Your task to perform on an android device: turn on bluetooth scan Image 0: 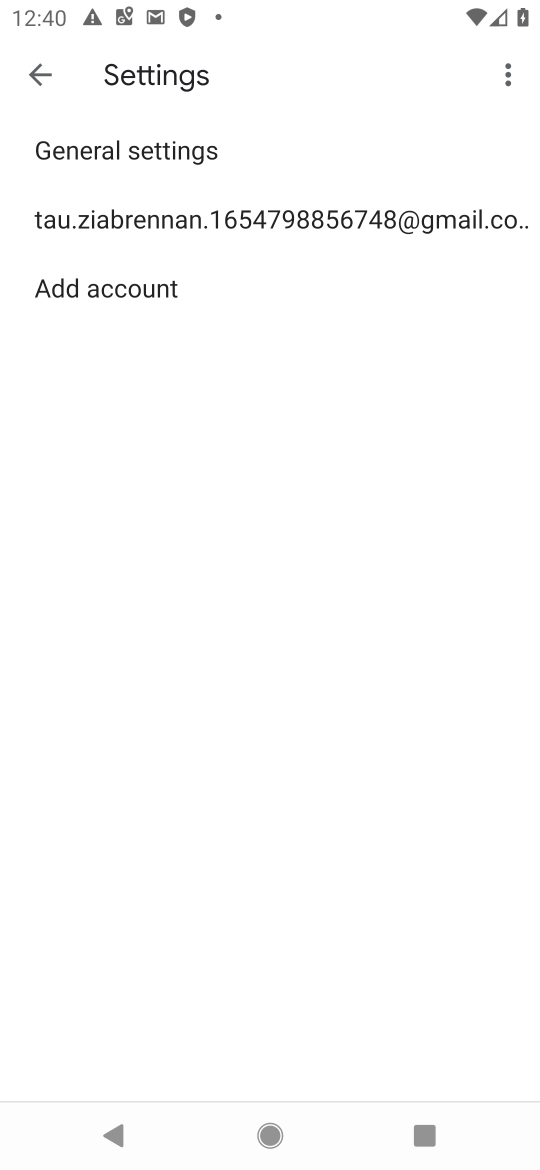
Step 0: press home button
Your task to perform on an android device: turn on bluetooth scan Image 1: 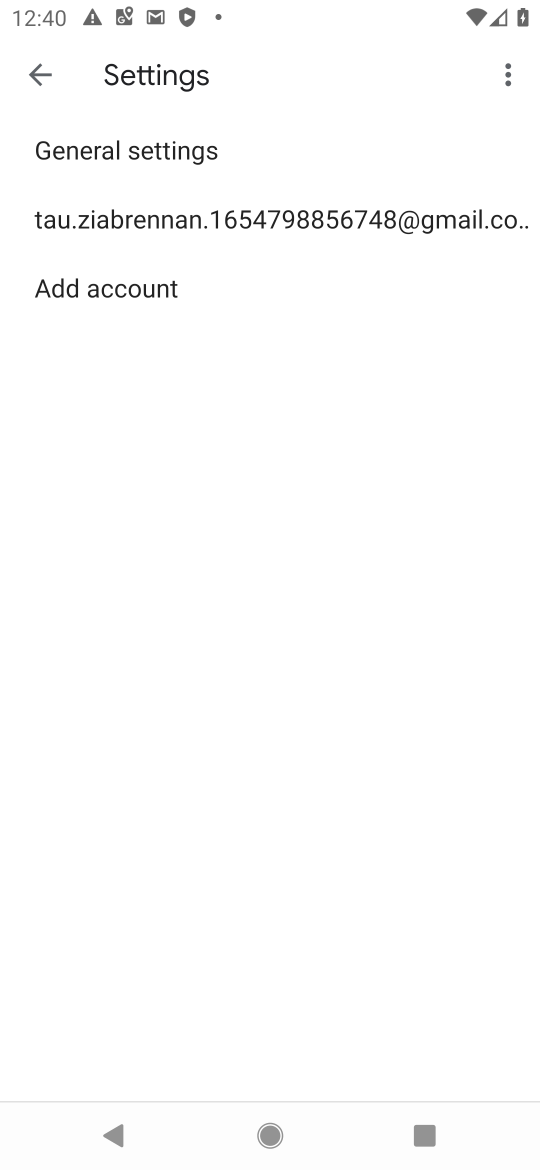
Step 1: press home button
Your task to perform on an android device: turn on bluetooth scan Image 2: 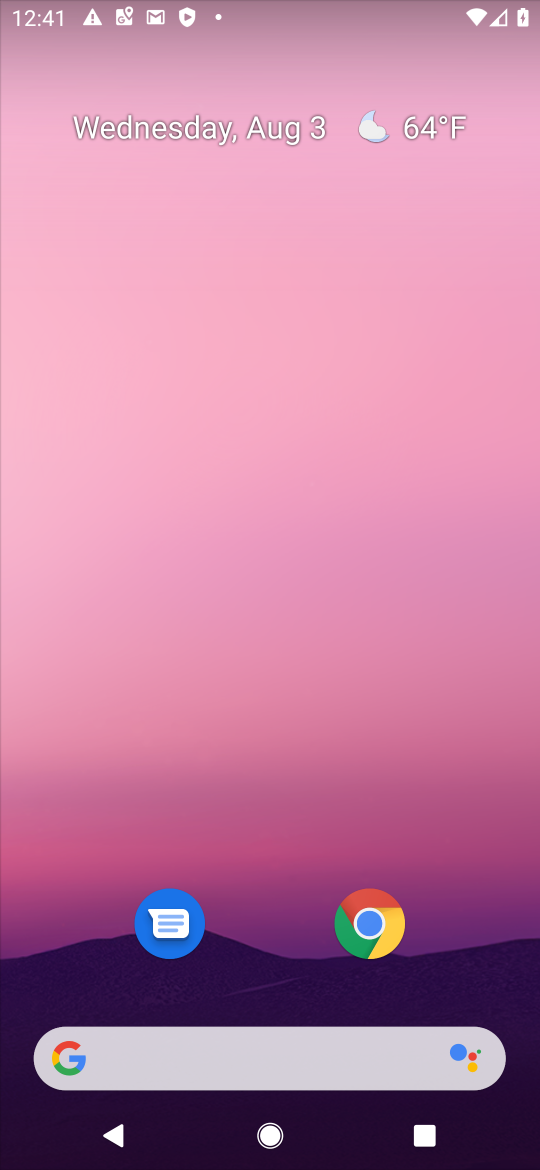
Step 2: drag from (257, 1024) to (383, 427)
Your task to perform on an android device: turn on bluetooth scan Image 3: 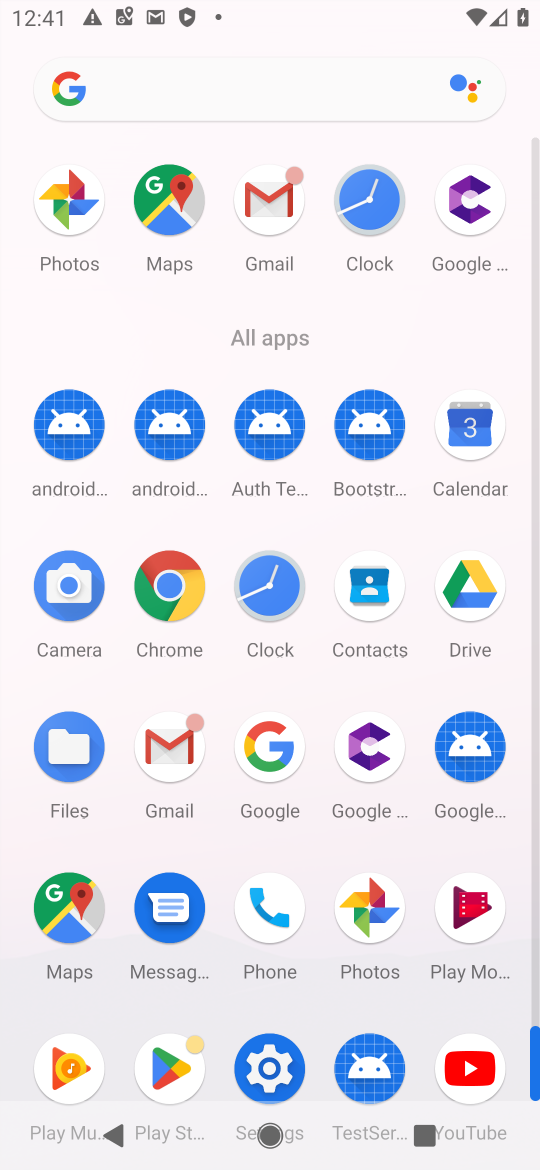
Step 3: drag from (308, 972) to (372, 439)
Your task to perform on an android device: turn on bluetooth scan Image 4: 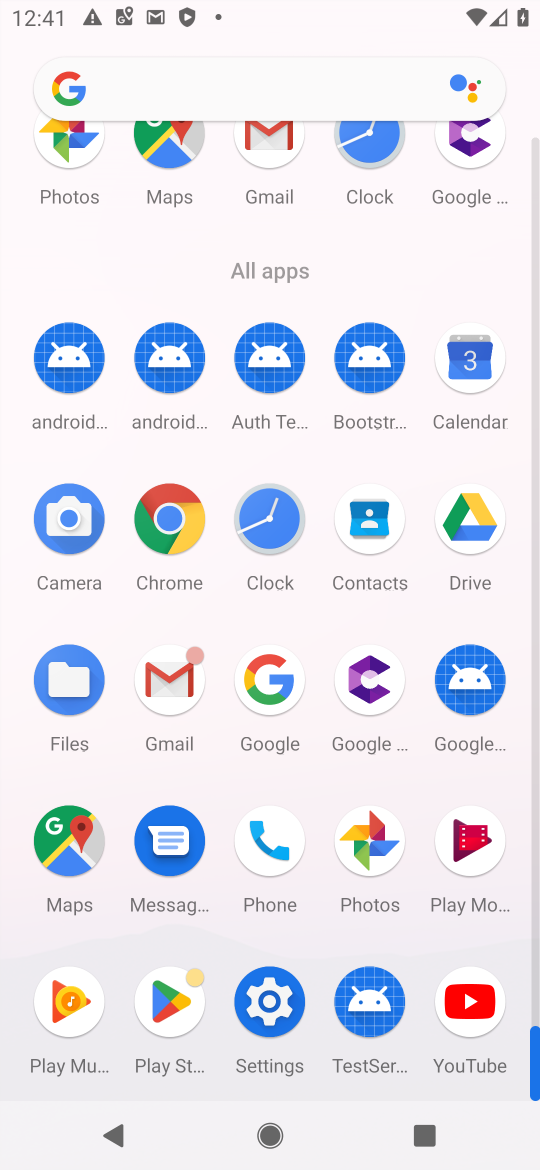
Step 4: click (267, 1003)
Your task to perform on an android device: turn on bluetooth scan Image 5: 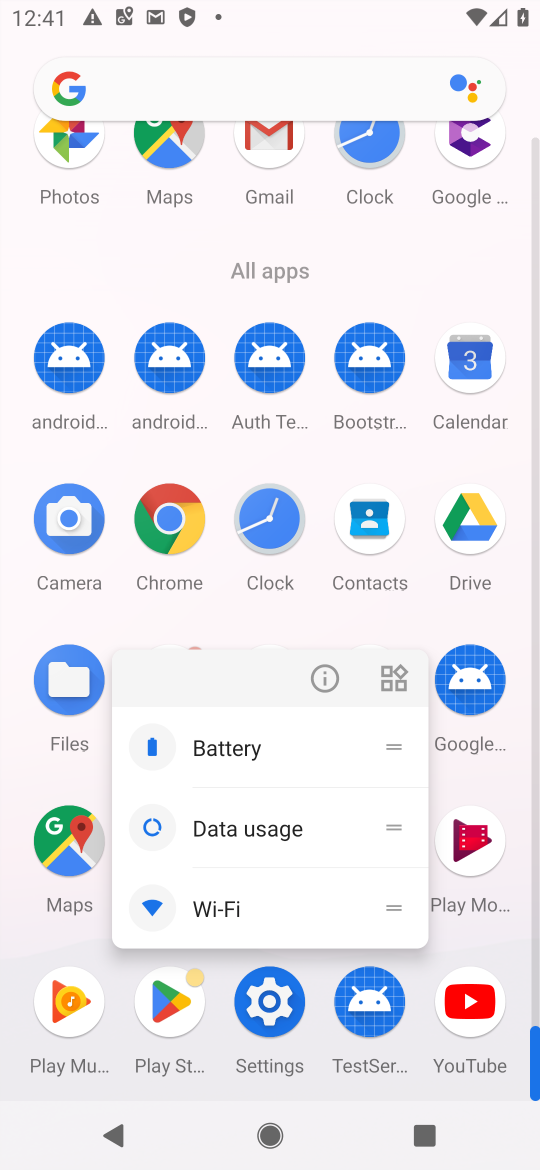
Step 5: click (324, 688)
Your task to perform on an android device: turn on bluetooth scan Image 6: 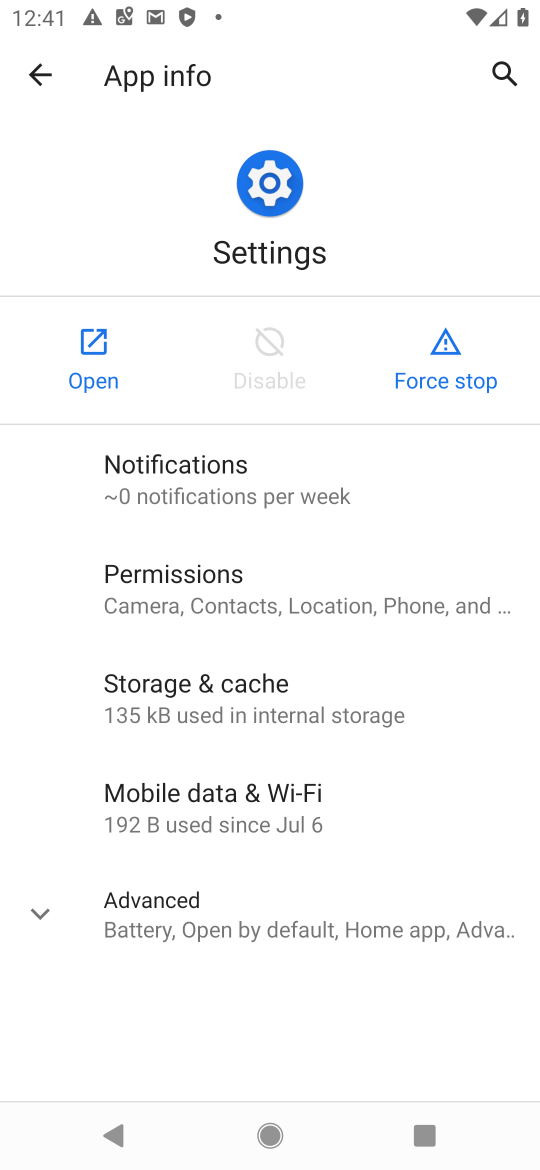
Step 6: click (94, 362)
Your task to perform on an android device: turn on bluetooth scan Image 7: 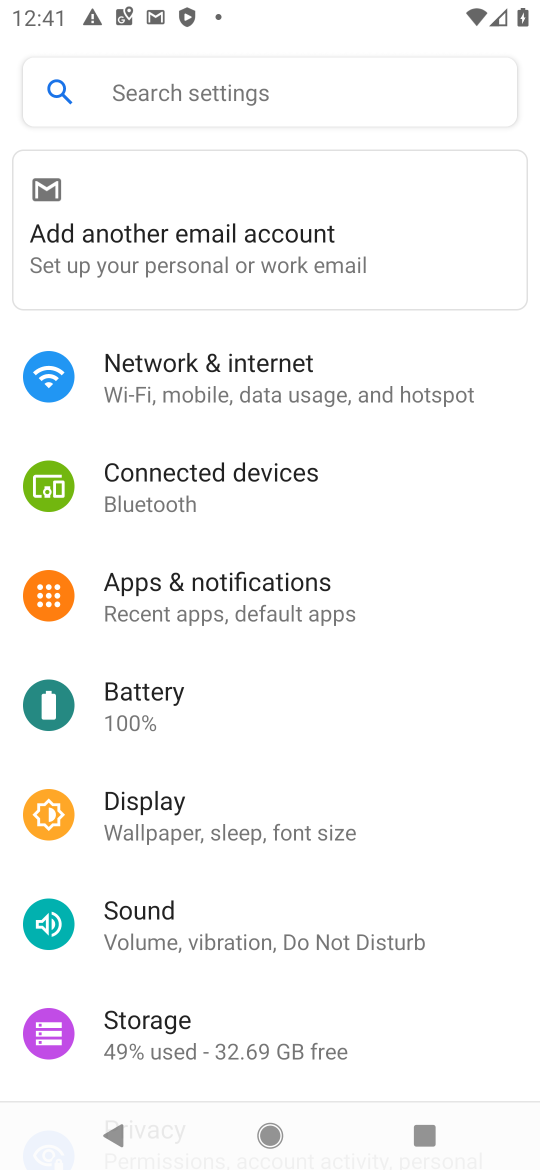
Step 7: drag from (291, 973) to (323, 421)
Your task to perform on an android device: turn on bluetooth scan Image 8: 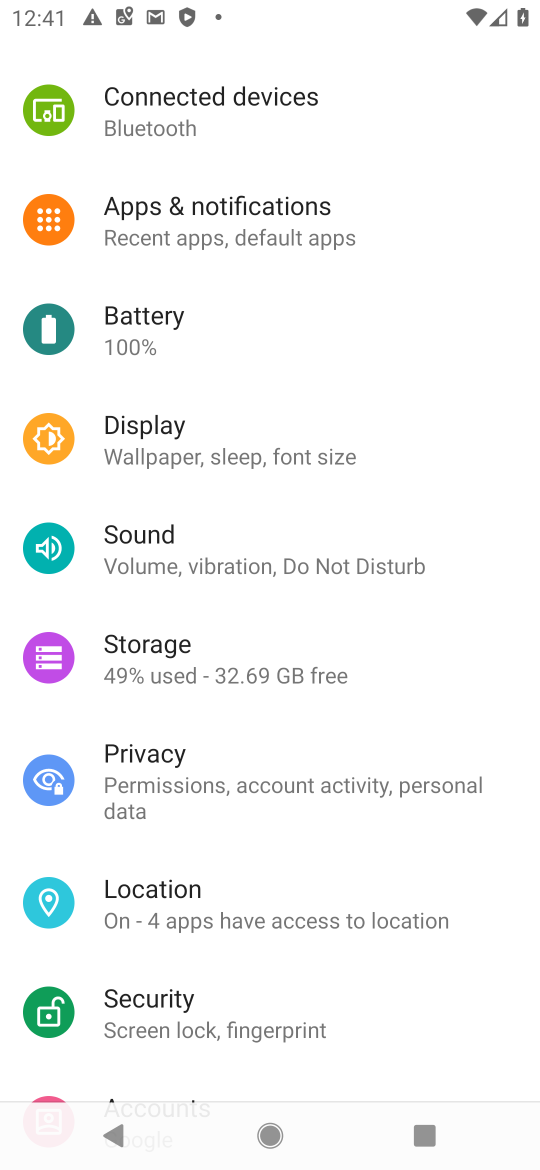
Step 8: drag from (322, 500) to (518, 1149)
Your task to perform on an android device: turn on bluetooth scan Image 9: 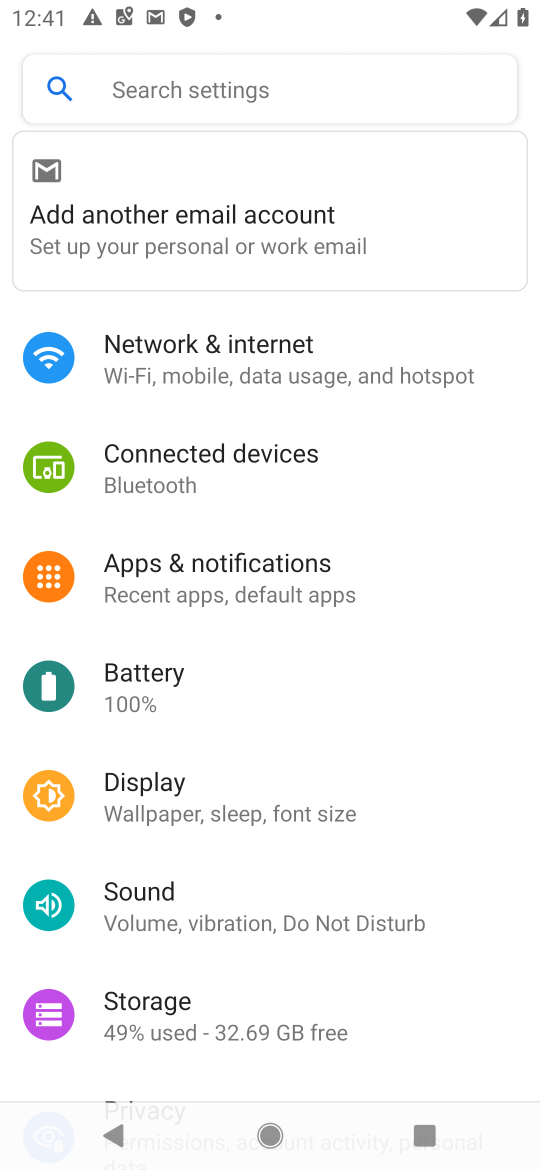
Step 9: drag from (264, 980) to (389, 138)
Your task to perform on an android device: turn on bluetooth scan Image 10: 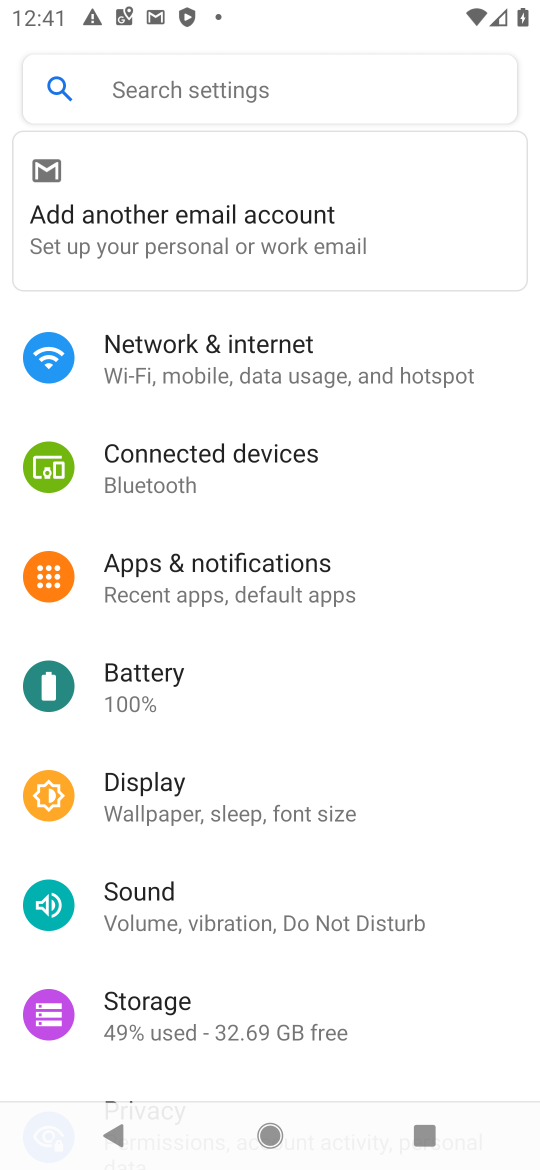
Step 10: drag from (212, 951) to (326, 204)
Your task to perform on an android device: turn on bluetooth scan Image 11: 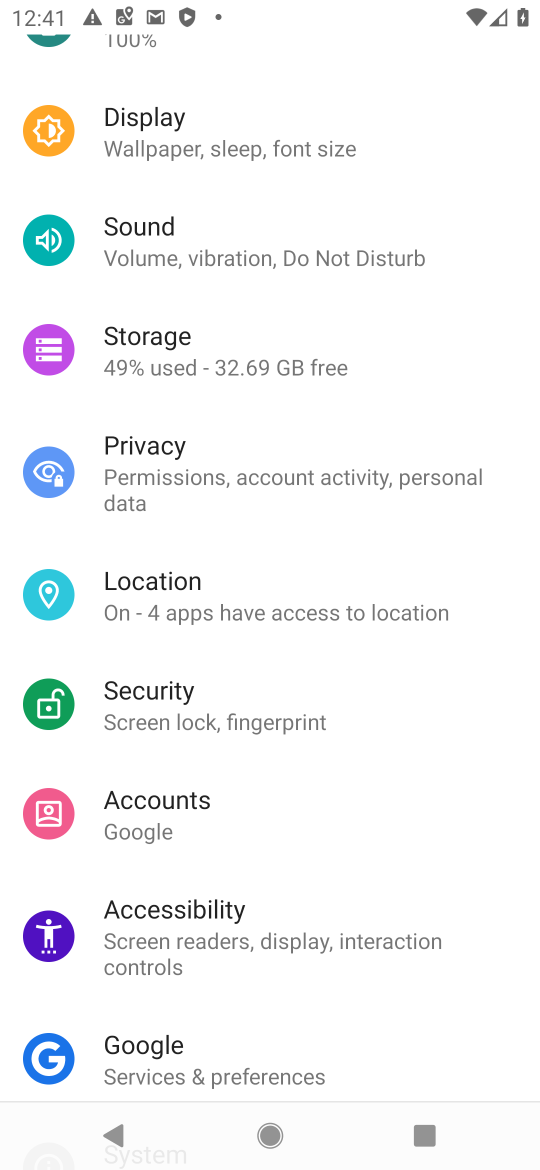
Step 11: drag from (247, 904) to (412, 382)
Your task to perform on an android device: turn on bluetooth scan Image 12: 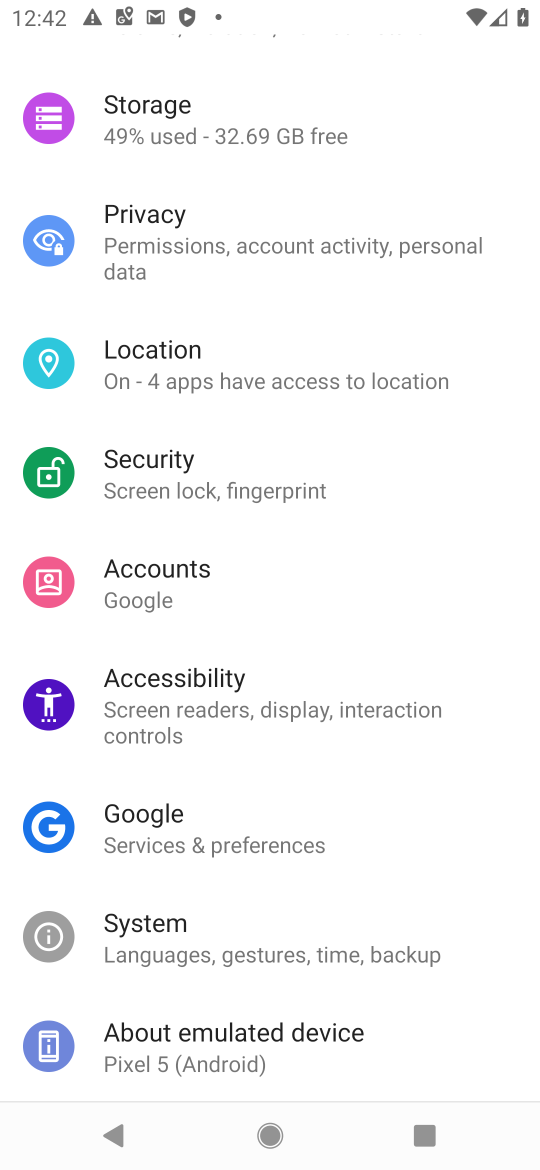
Step 12: drag from (246, 908) to (284, 302)
Your task to perform on an android device: turn on bluetooth scan Image 13: 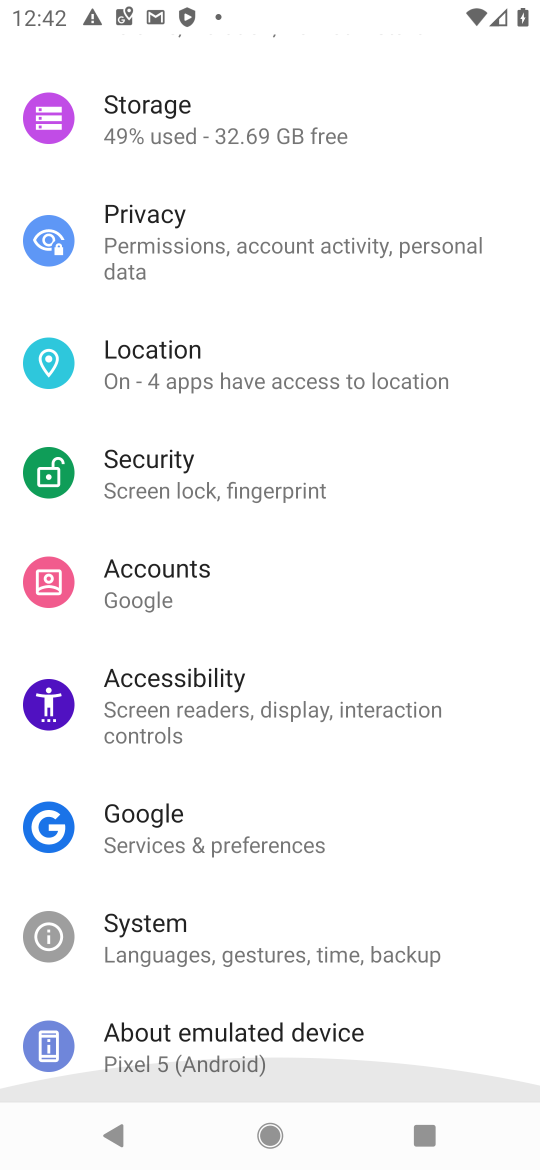
Step 13: drag from (307, 356) to (349, 1086)
Your task to perform on an android device: turn on bluetooth scan Image 14: 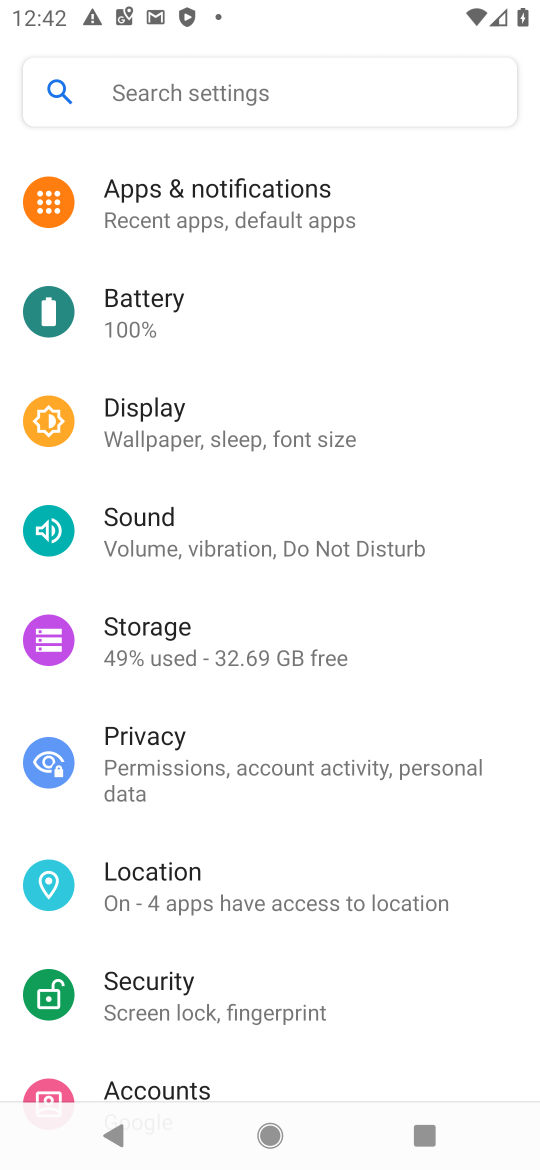
Step 14: drag from (340, 958) to (448, 236)
Your task to perform on an android device: turn on bluetooth scan Image 15: 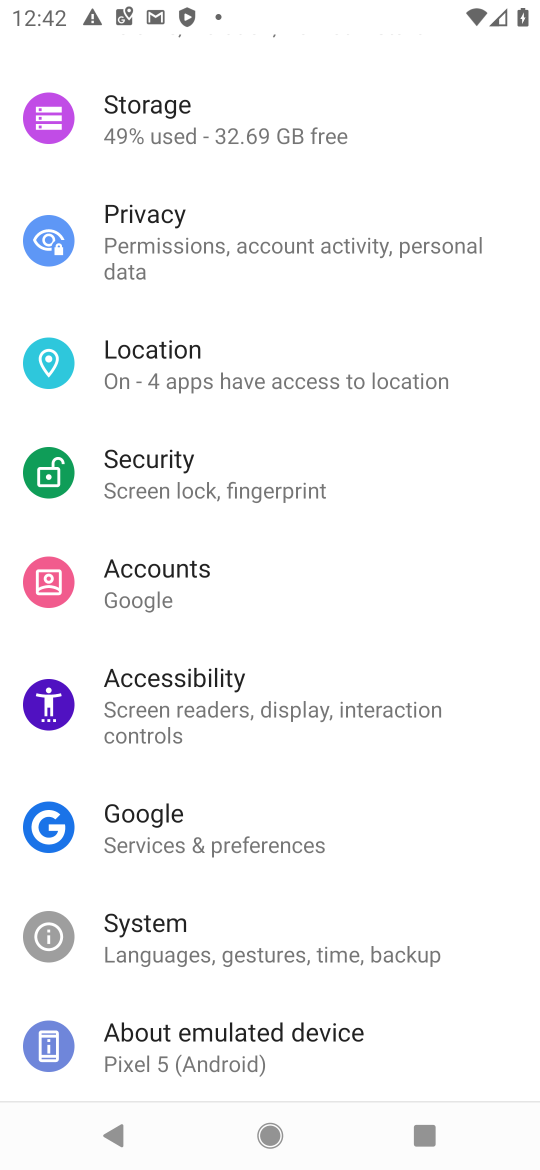
Step 15: drag from (174, 857) to (264, 321)
Your task to perform on an android device: turn on bluetooth scan Image 16: 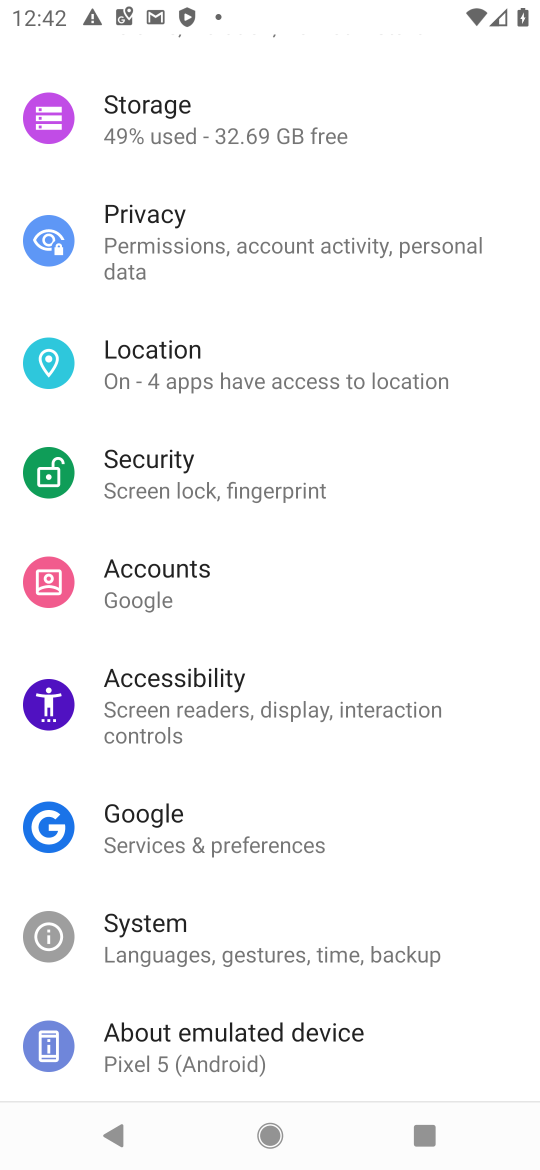
Step 16: drag from (261, 407) to (294, 1149)
Your task to perform on an android device: turn on bluetooth scan Image 17: 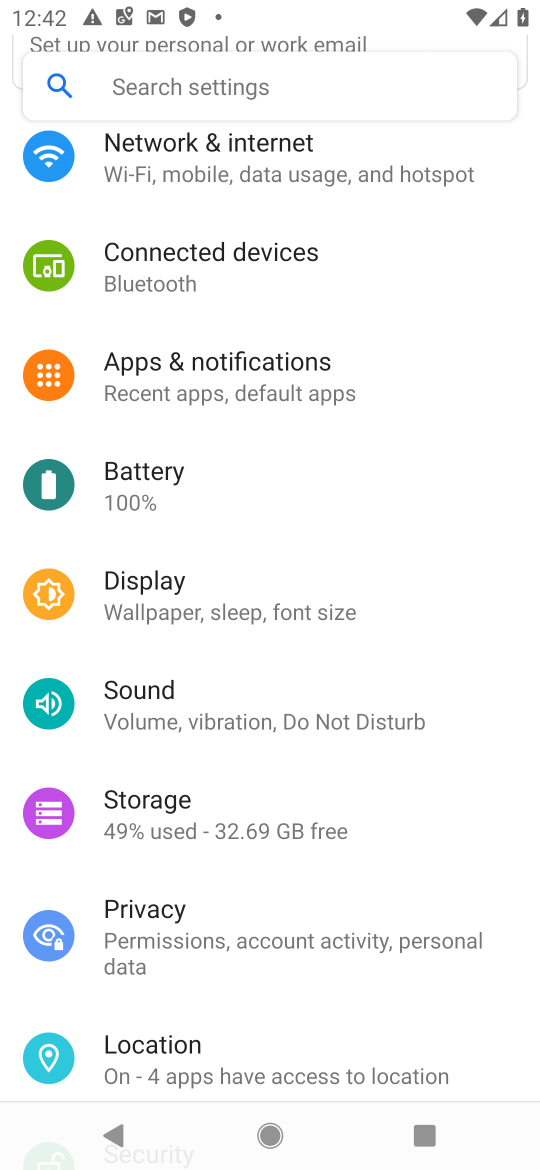
Step 17: drag from (237, 331) to (315, 1152)
Your task to perform on an android device: turn on bluetooth scan Image 18: 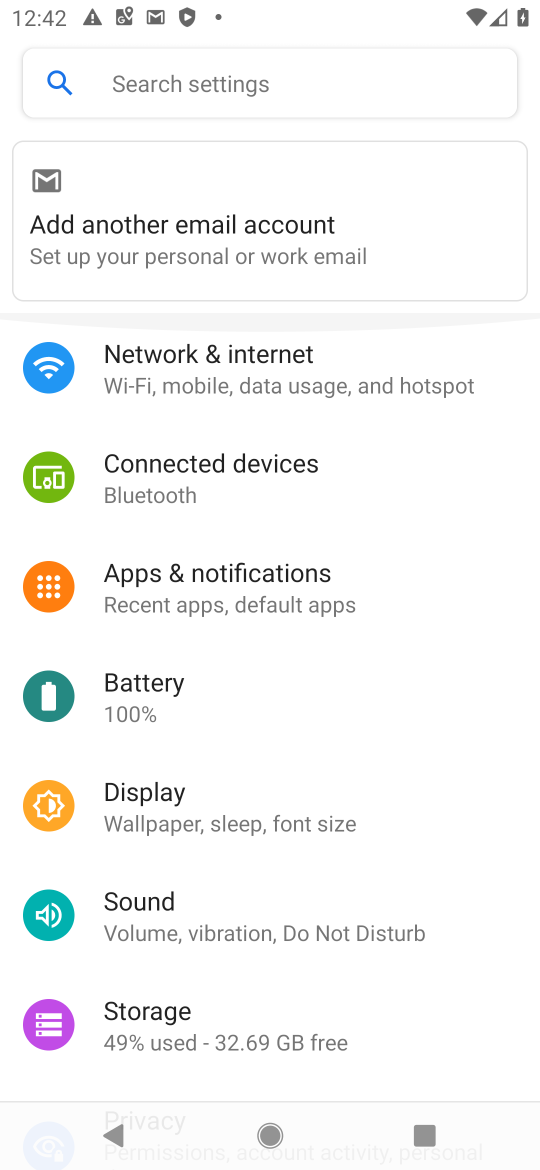
Step 18: drag from (228, 349) to (383, 1164)
Your task to perform on an android device: turn on bluetooth scan Image 19: 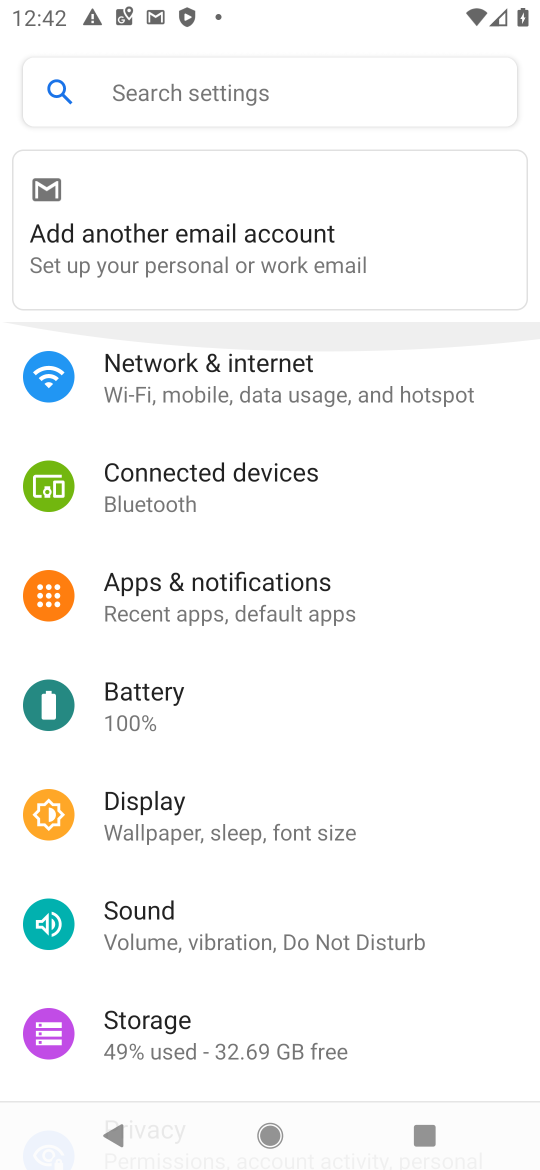
Step 19: drag from (290, 958) to (379, 116)
Your task to perform on an android device: turn on bluetooth scan Image 20: 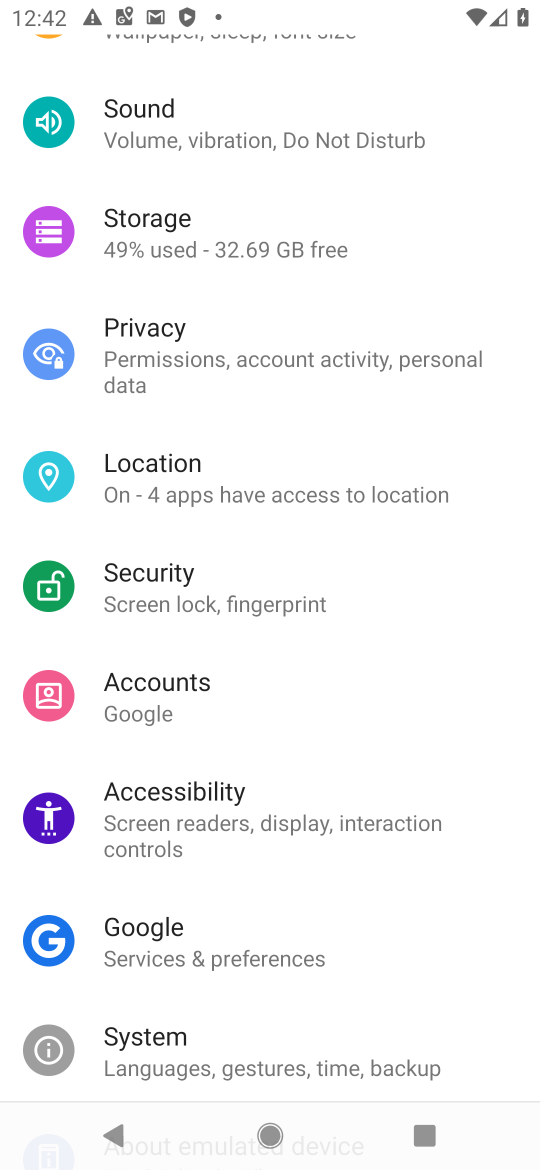
Step 20: drag from (276, 997) to (394, 122)
Your task to perform on an android device: turn on bluetooth scan Image 21: 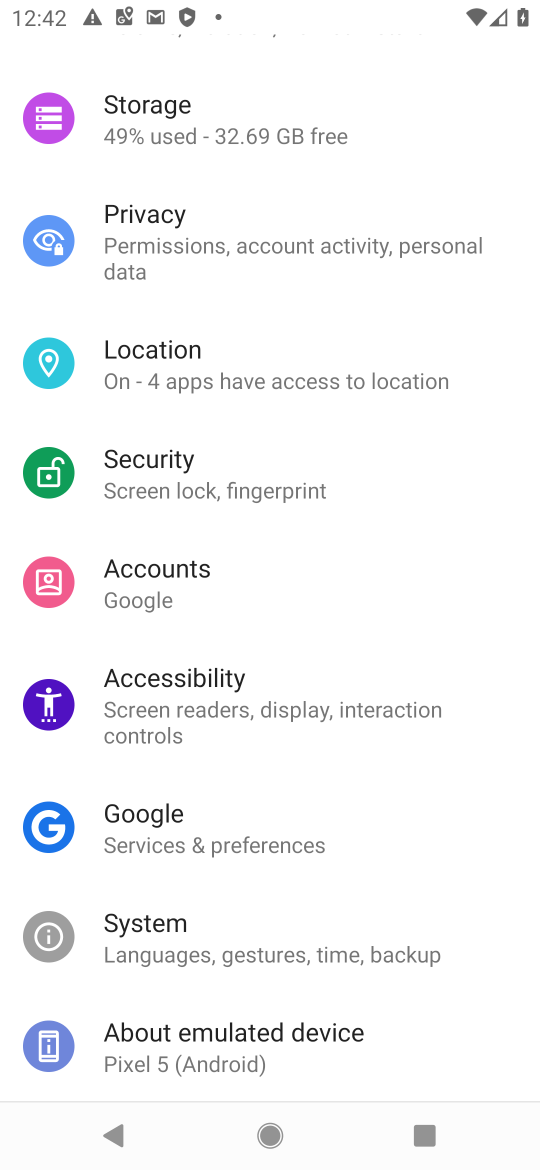
Step 21: click (154, 364)
Your task to perform on an android device: turn on bluetooth scan Image 22: 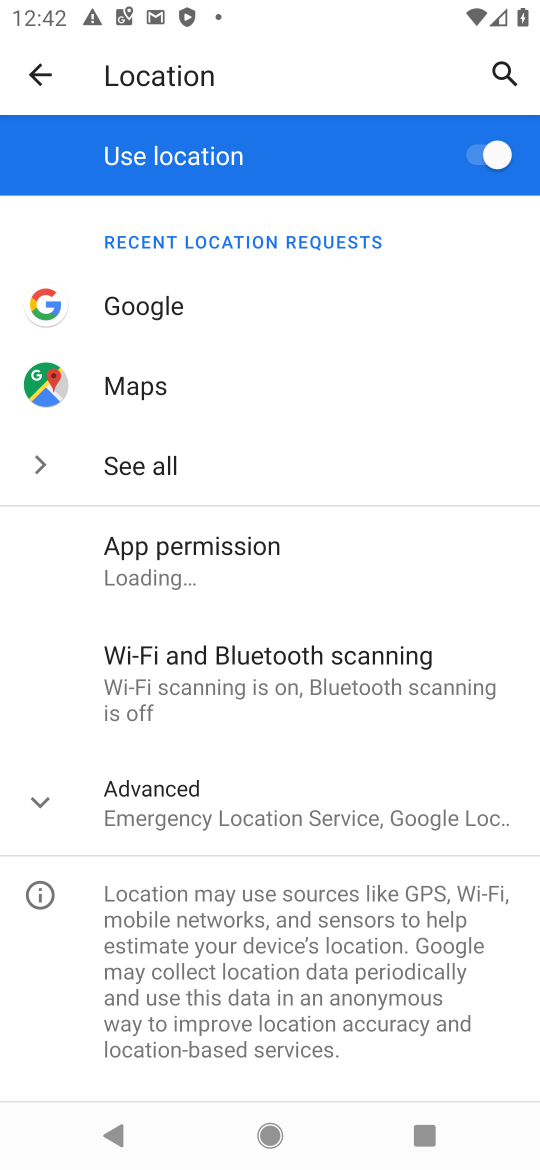
Step 22: drag from (279, 680) to (330, 331)
Your task to perform on an android device: turn on bluetooth scan Image 23: 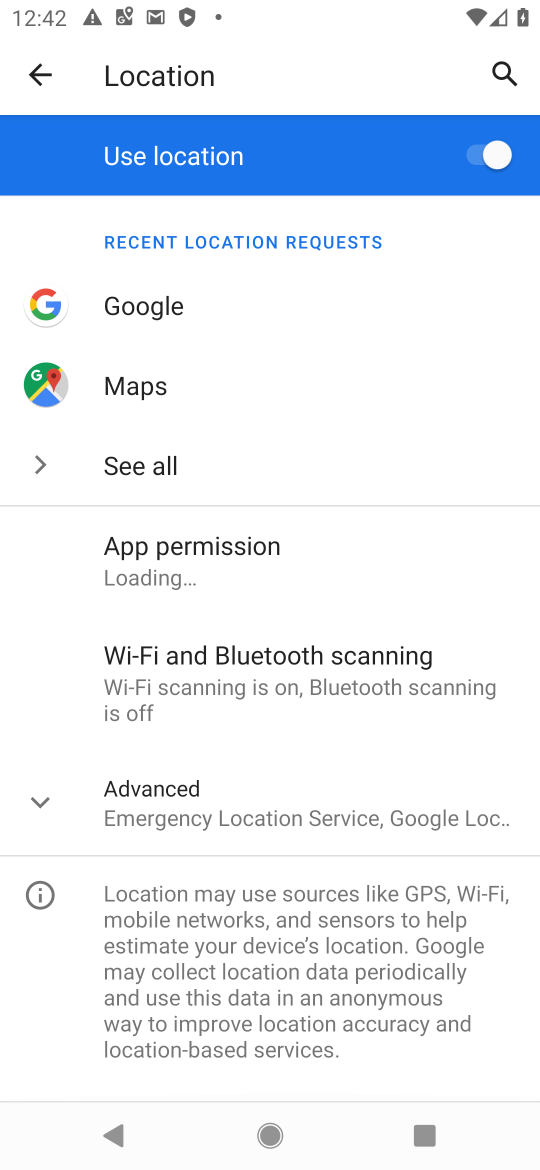
Step 23: click (147, 817)
Your task to perform on an android device: turn on bluetooth scan Image 24: 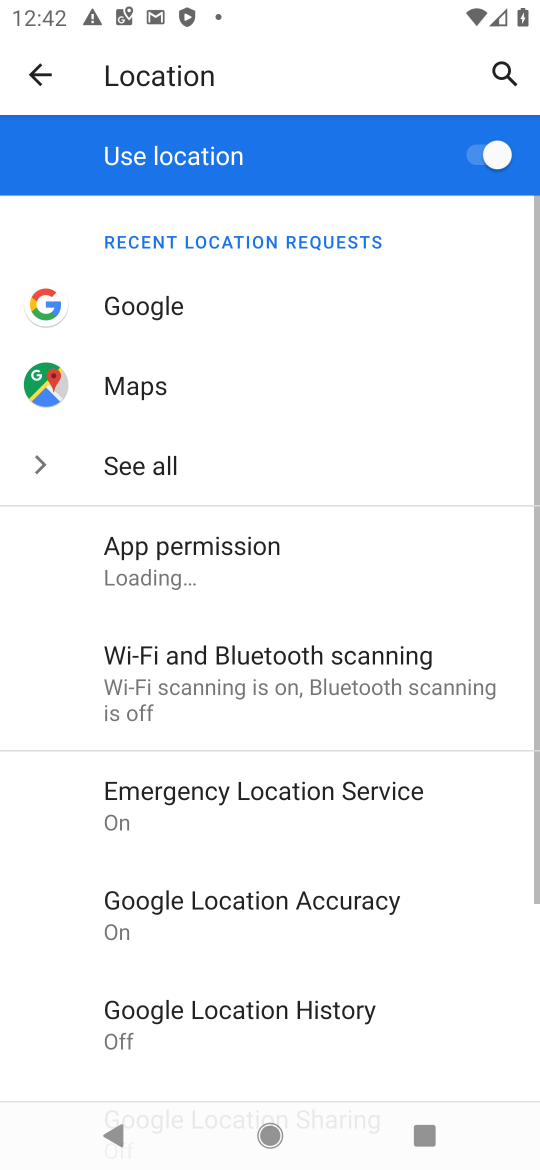
Step 24: drag from (310, 819) to (432, 285)
Your task to perform on an android device: turn on bluetooth scan Image 25: 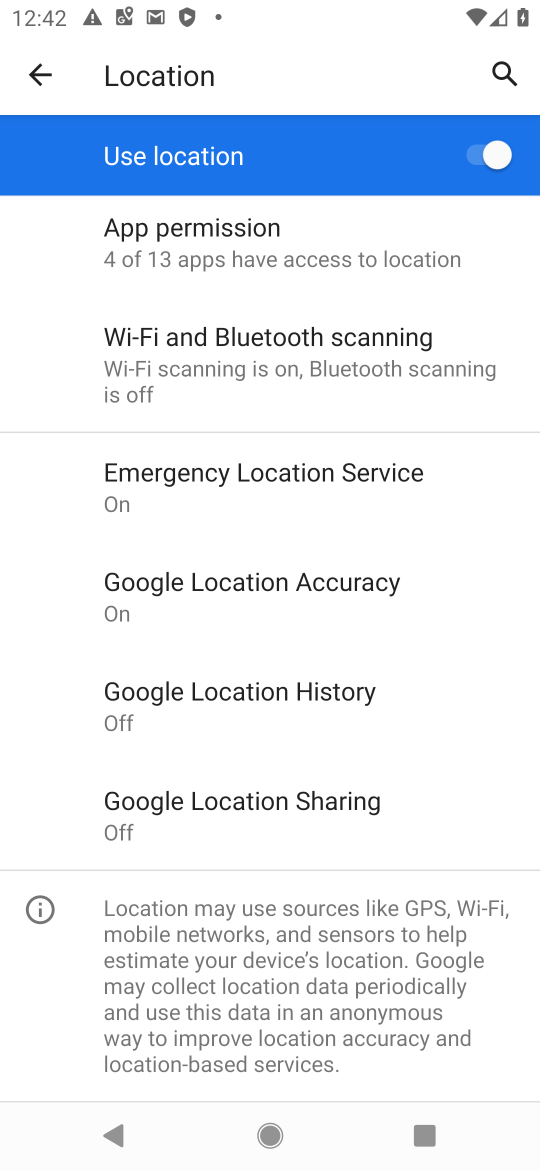
Step 25: drag from (382, 363) to (372, 1091)
Your task to perform on an android device: turn on bluetooth scan Image 26: 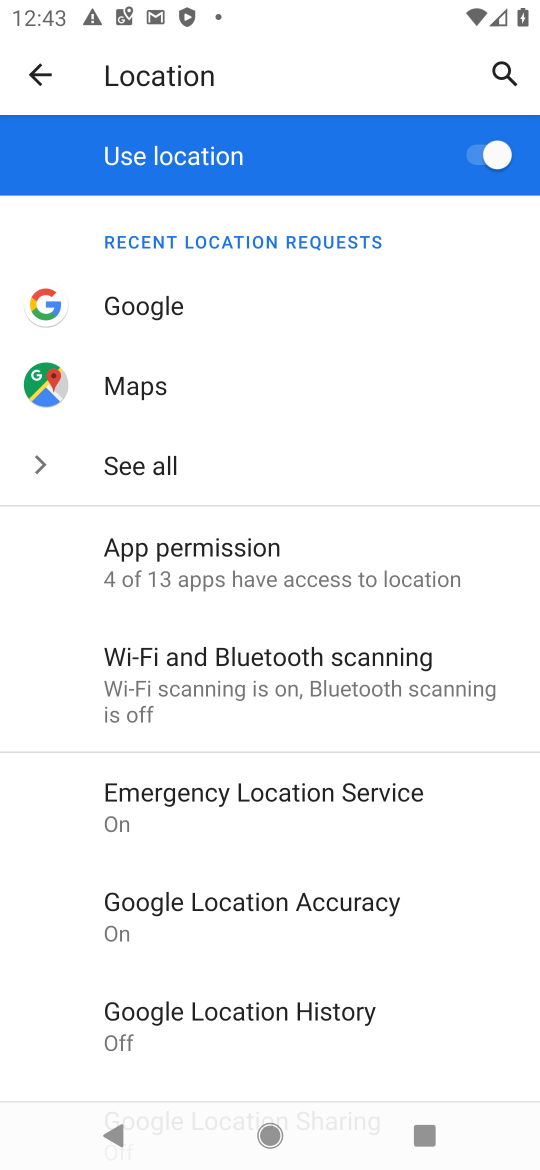
Step 26: drag from (321, 494) to (381, 1102)
Your task to perform on an android device: turn on bluetooth scan Image 27: 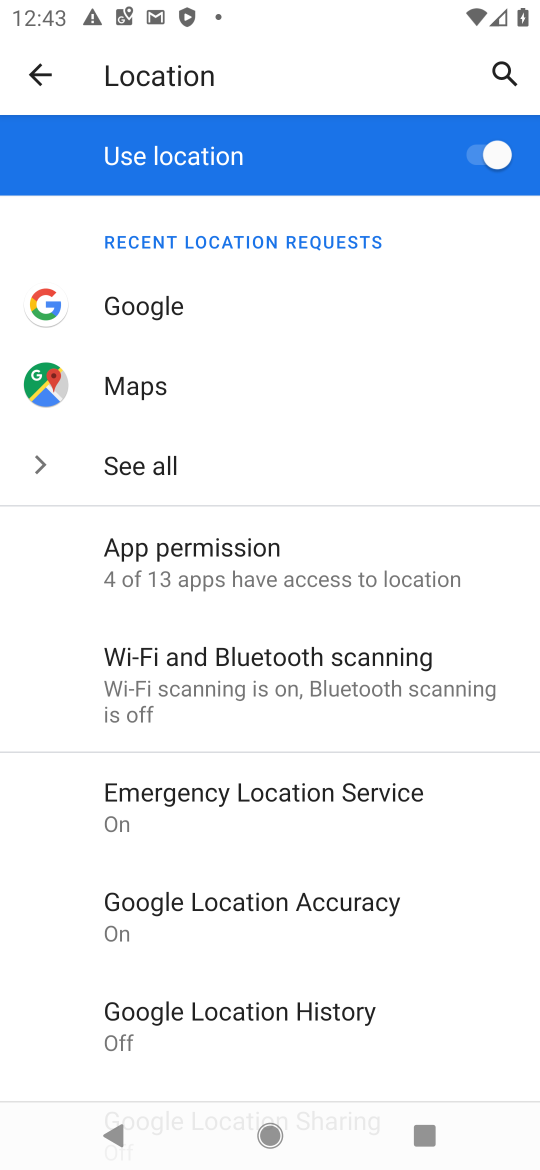
Step 27: click (334, 727)
Your task to perform on an android device: turn on bluetooth scan Image 28: 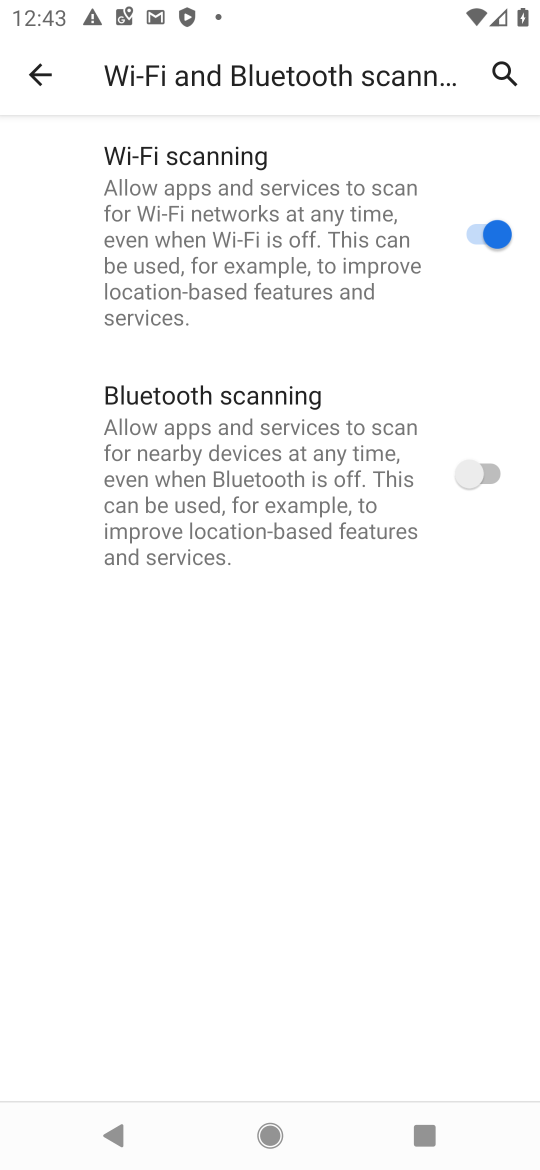
Step 28: click (406, 477)
Your task to perform on an android device: turn on bluetooth scan Image 29: 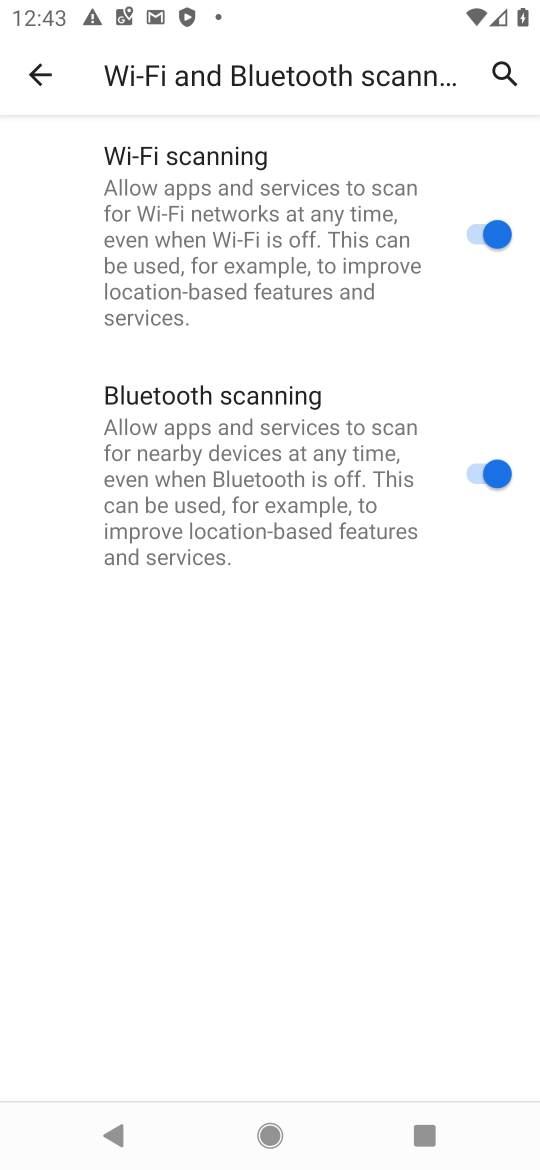
Step 29: task complete